Your task to perform on an android device: Open a new Chrome tab Image 0: 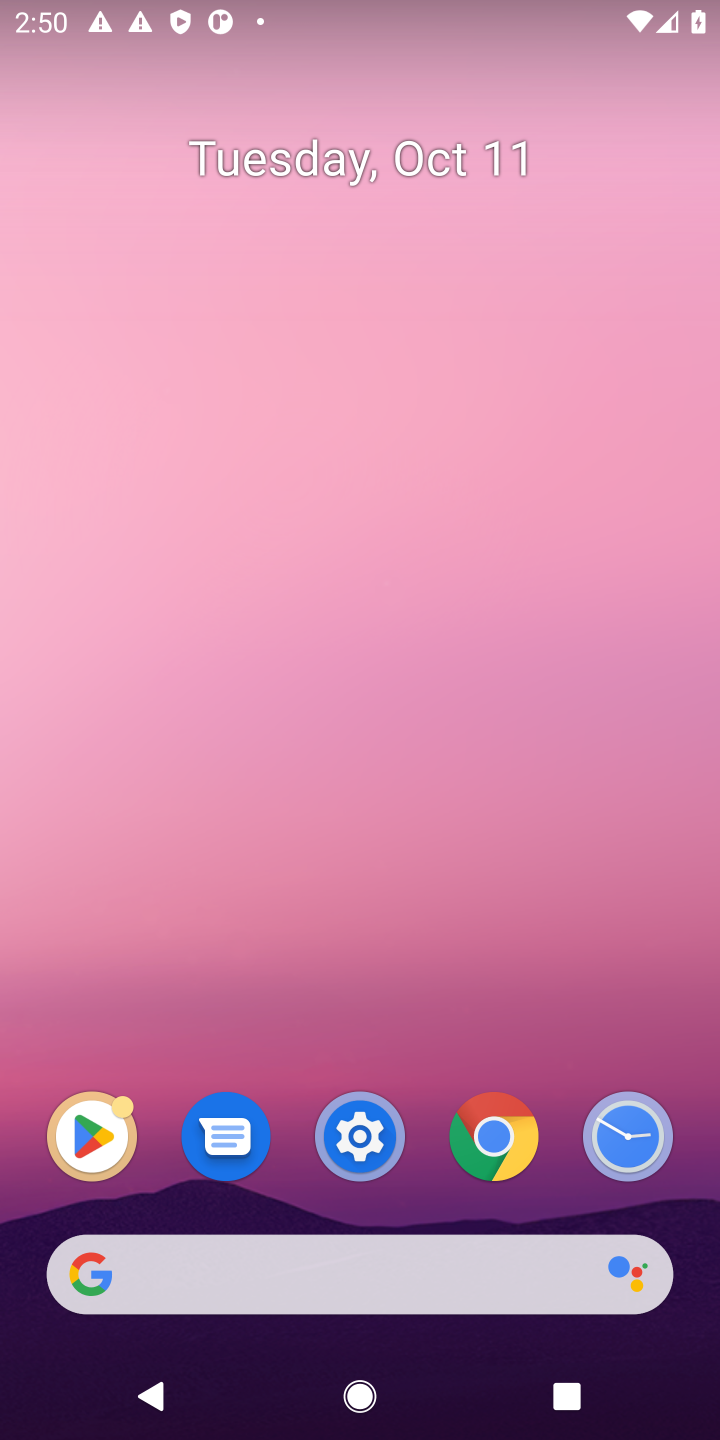
Step 0: click (490, 1135)
Your task to perform on an android device: Open a new Chrome tab Image 1: 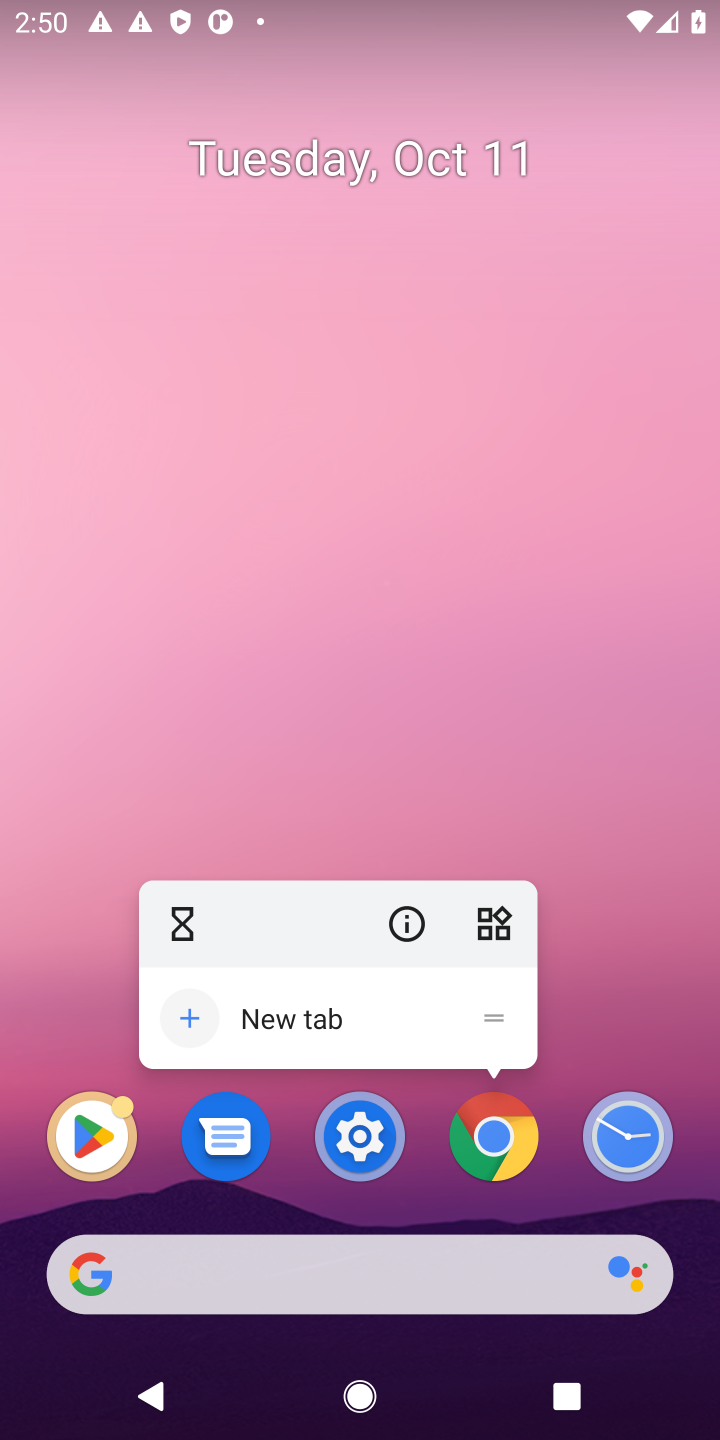
Step 1: click (488, 1140)
Your task to perform on an android device: Open a new Chrome tab Image 2: 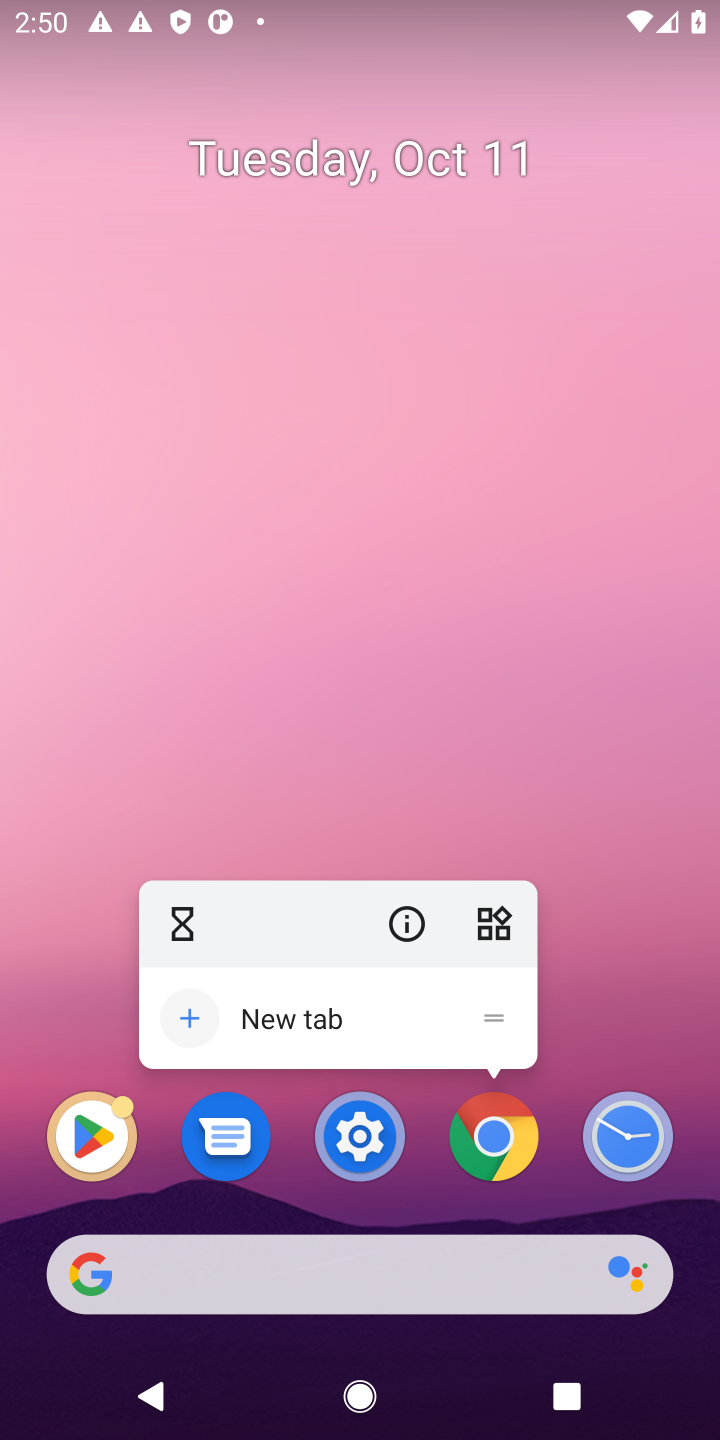
Step 2: click (488, 1135)
Your task to perform on an android device: Open a new Chrome tab Image 3: 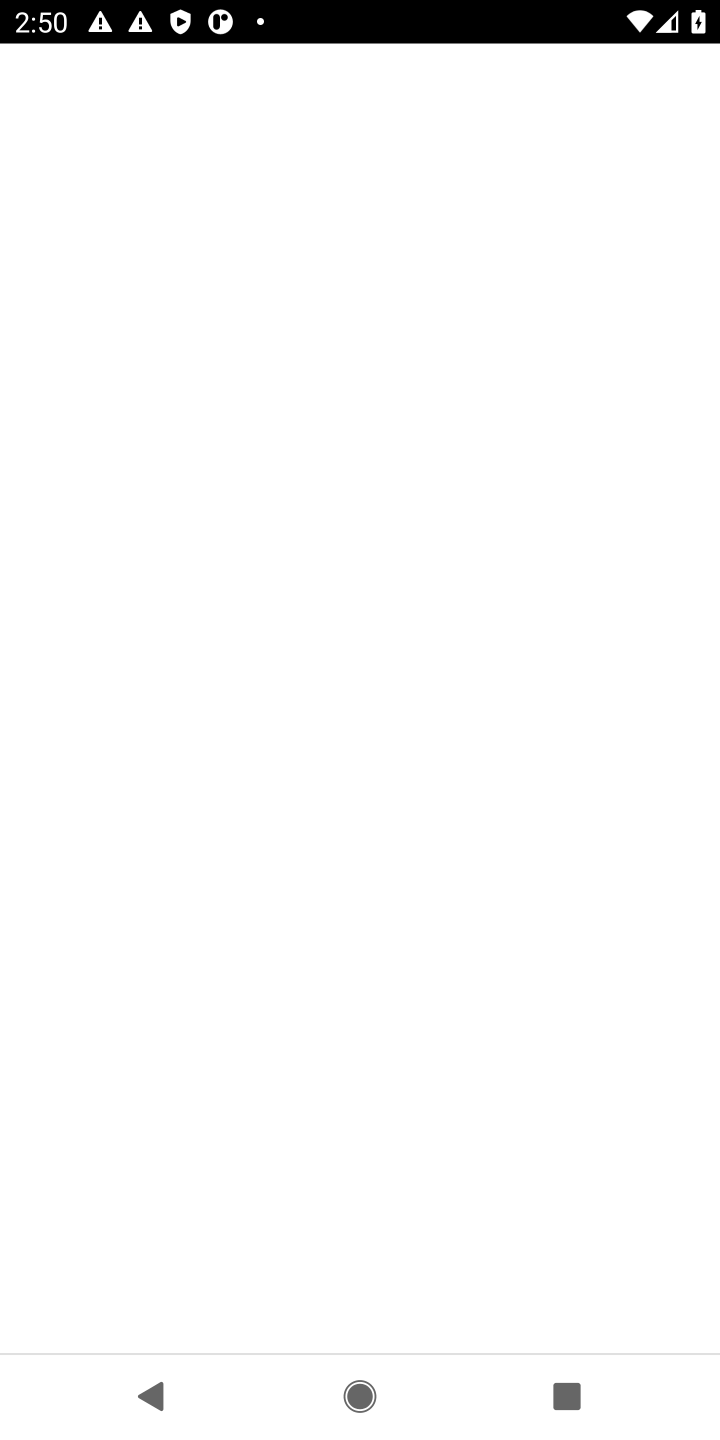
Step 3: click (497, 1141)
Your task to perform on an android device: Open a new Chrome tab Image 4: 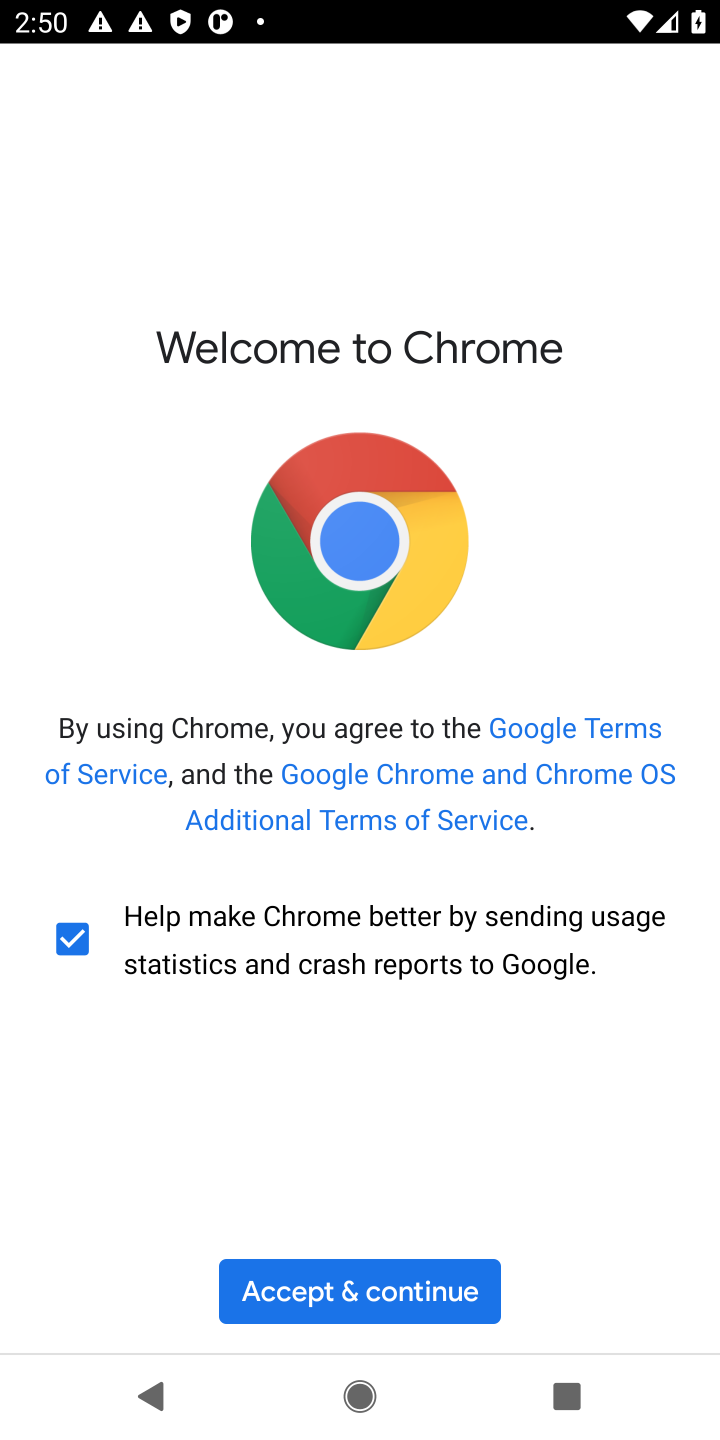
Step 4: click (408, 1281)
Your task to perform on an android device: Open a new Chrome tab Image 5: 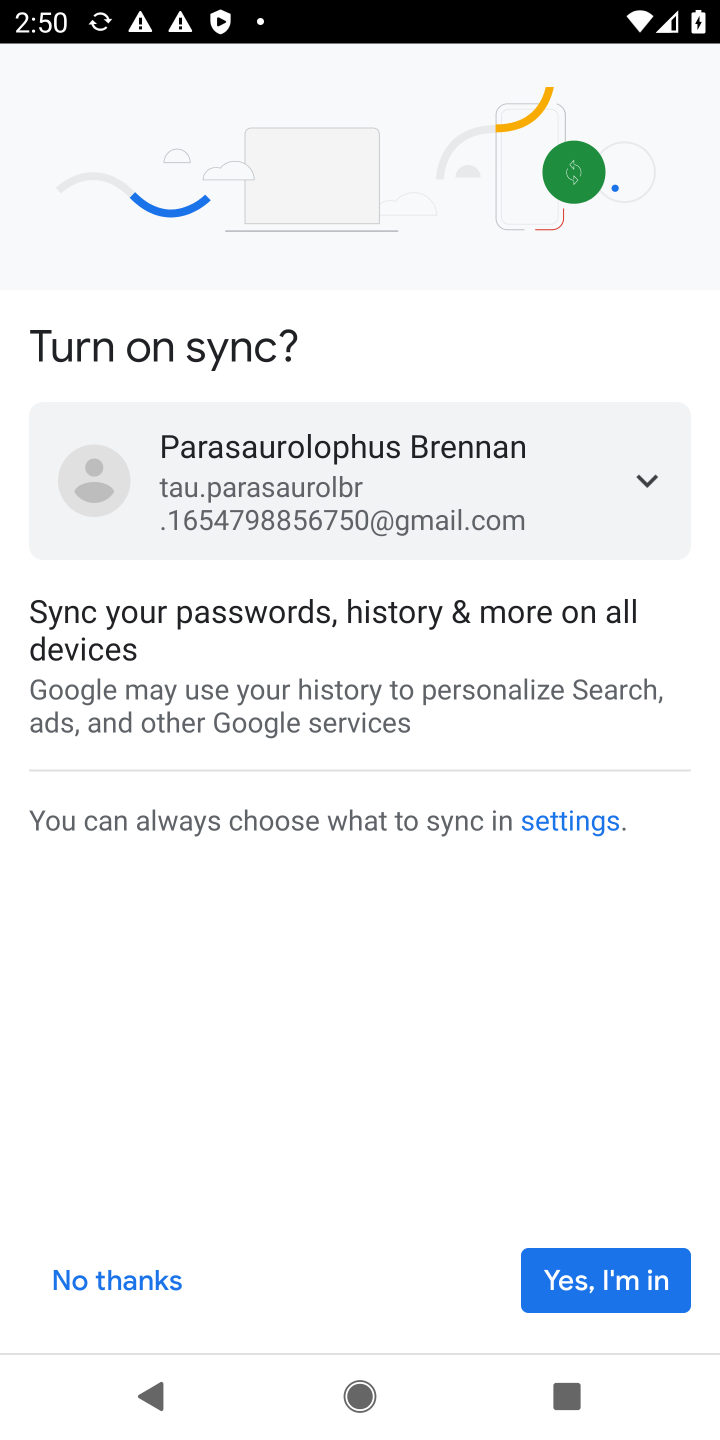
Step 5: click (592, 1283)
Your task to perform on an android device: Open a new Chrome tab Image 6: 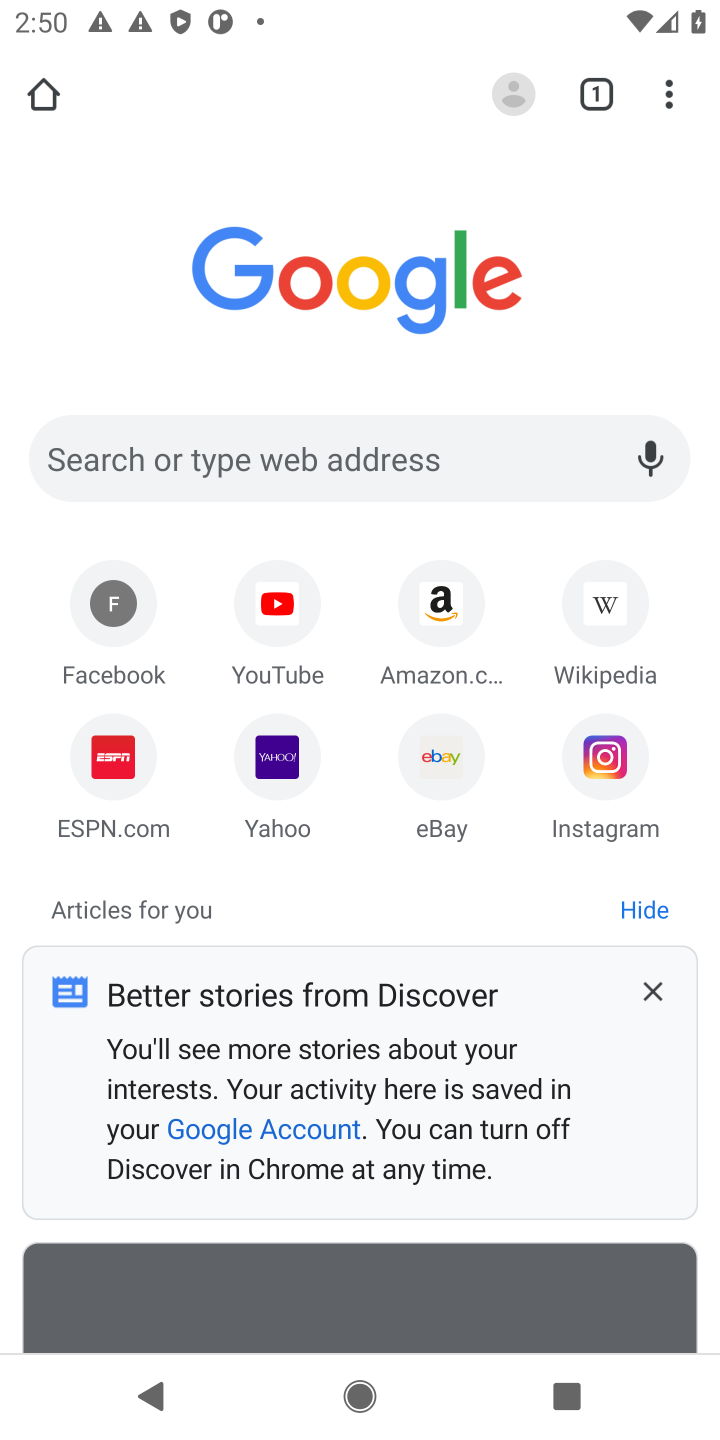
Step 6: task complete